Your task to perform on an android device: empty trash in the gmail app Image 0: 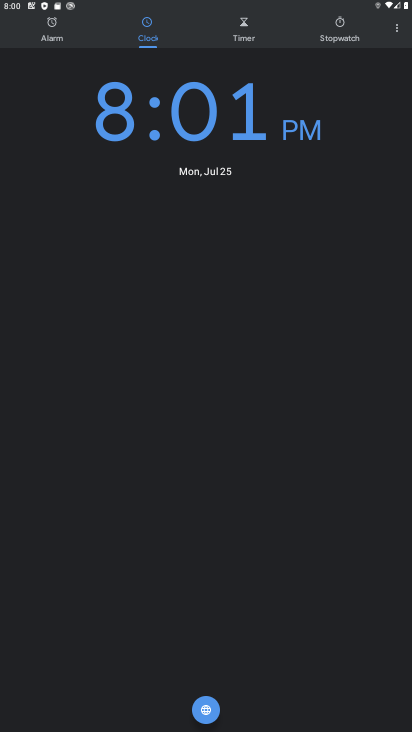
Step 0: press back button
Your task to perform on an android device: empty trash in the gmail app Image 1: 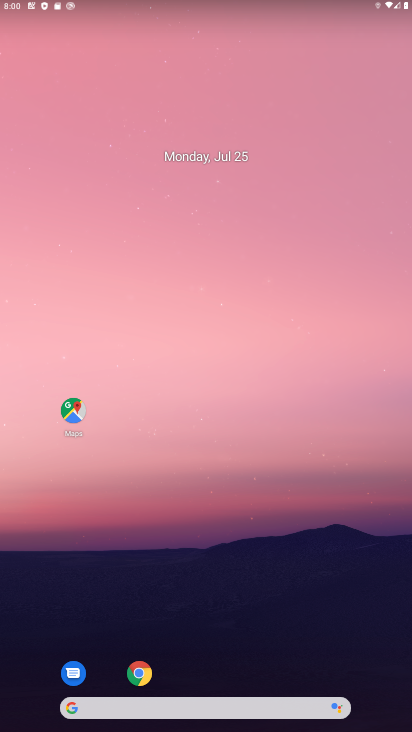
Step 1: drag from (164, 523) to (123, 245)
Your task to perform on an android device: empty trash in the gmail app Image 2: 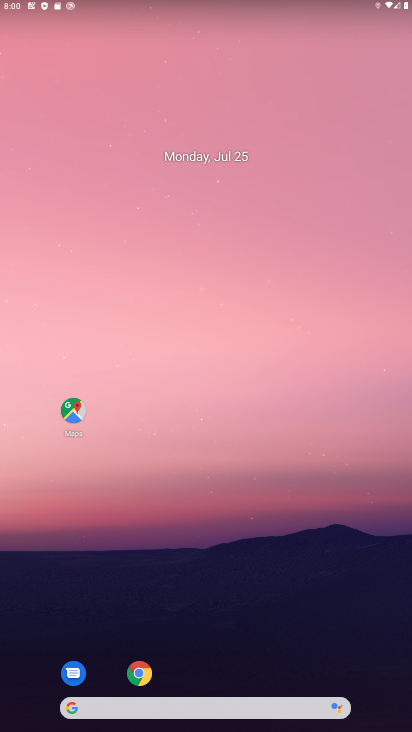
Step 2: drag from (244, 606) to (178, 86)
Your task to perform on an android device: empty trash in the gmail app Image 3: 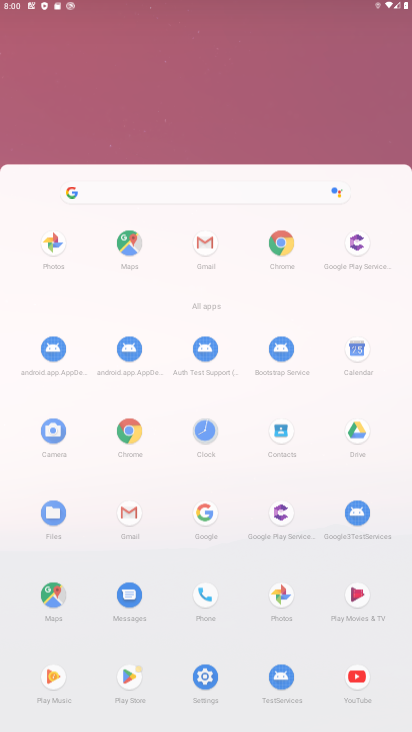
Step 3: click (240, 165)
Your task to perform on an android device: empty trash in the gmail app Image 4: 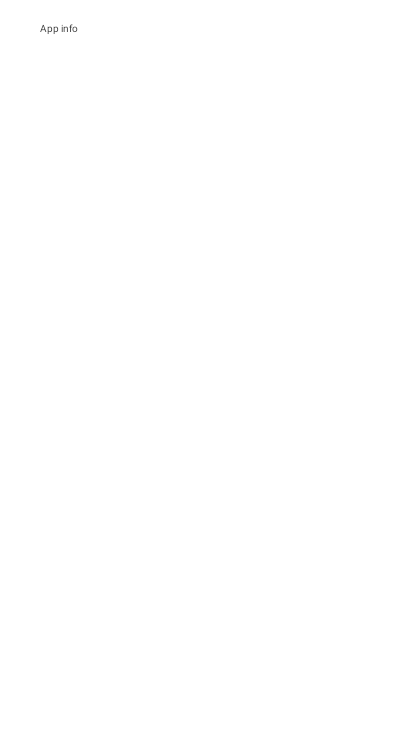
Step 4: click (129, 355)
Your task to perform on an android device: empty trash in the gmail app Image 5: 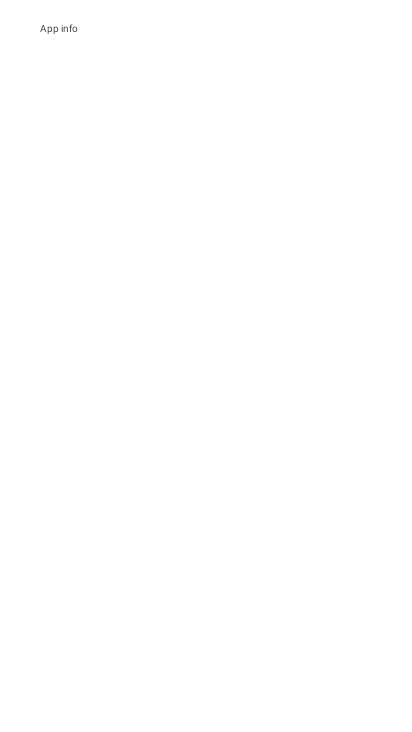
Step 5: press back button
Your task to perform on an android device: empty trash in the gmail app Image 6: 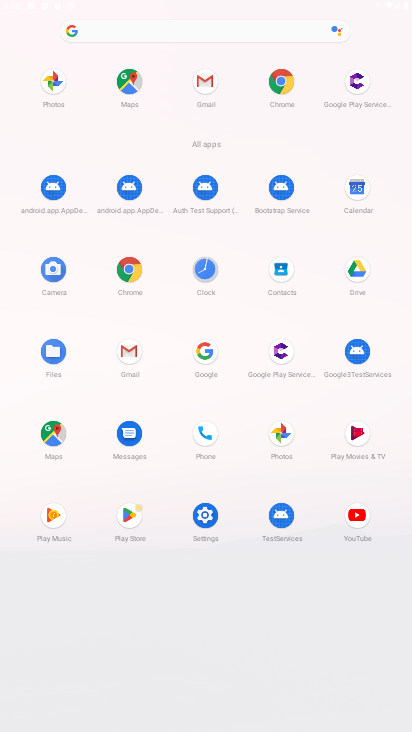
Step 6: click (136, 370)
Your task to perform on an android device: empty trash in the gmail app Image 7: 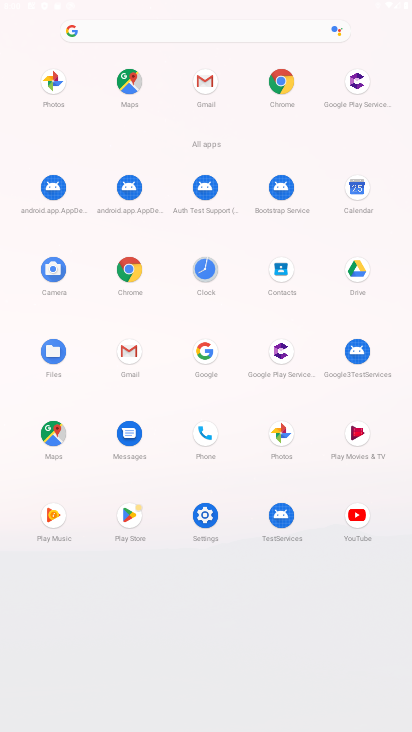
Step 7: click (129, 362)
Your task to perform on an android device: empty trash in the gmail app Image 8: 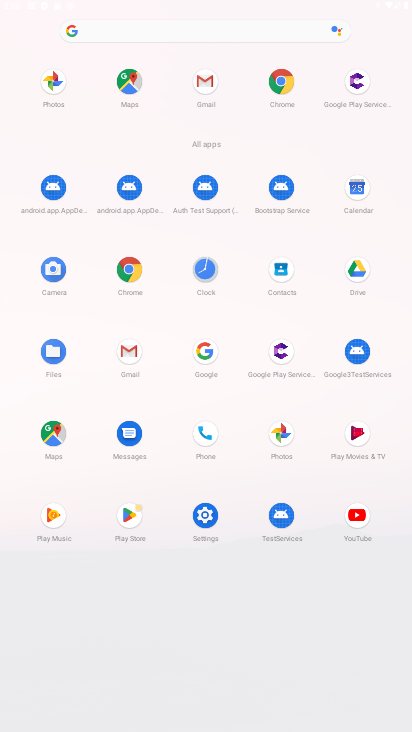
Step 8: click (136, 351)
Your task to perform on an android device: empty trash in the gmail app Image 9: 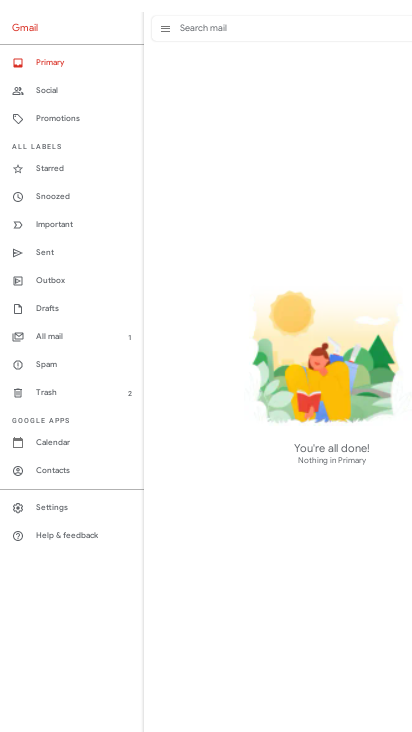
Step 9: click (47, 387)
Your task to perform on an android device: empty trash in the gmail app Image 10: 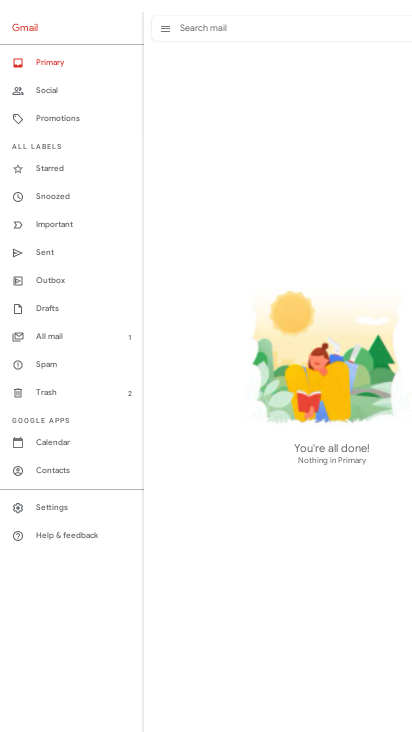
Step 10: click (47, 387)
Your task to perform on an android device: empty trash in the gmail app Image 11: 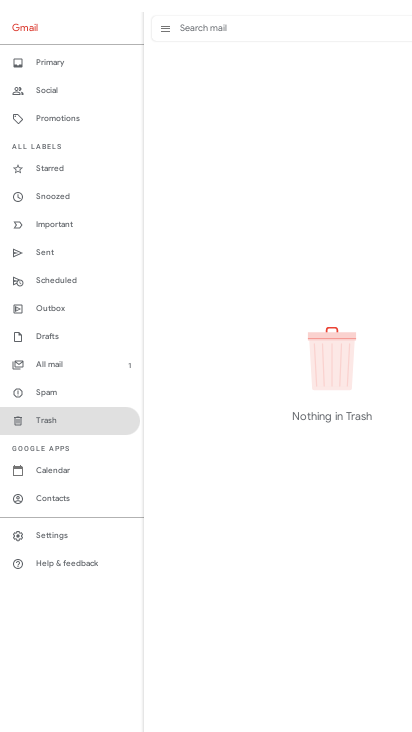
Step 11: click (58, 421)
Your task to perform on an android device: empty trash in the gmail app Image 12: 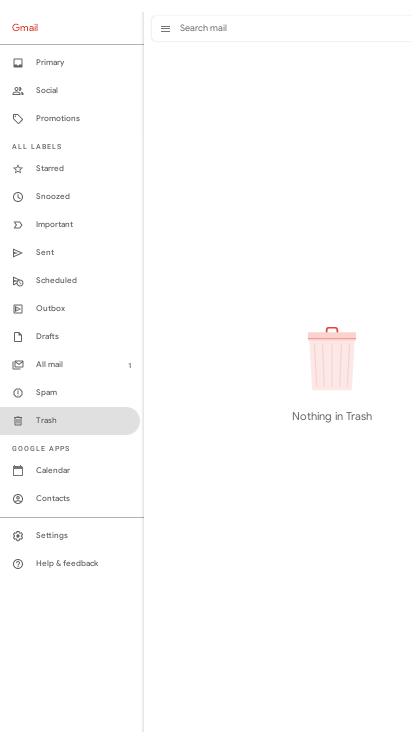
Step 12: click (58, 421)
Your task to perform on an android device: empty trash in the gmail app Image 13: 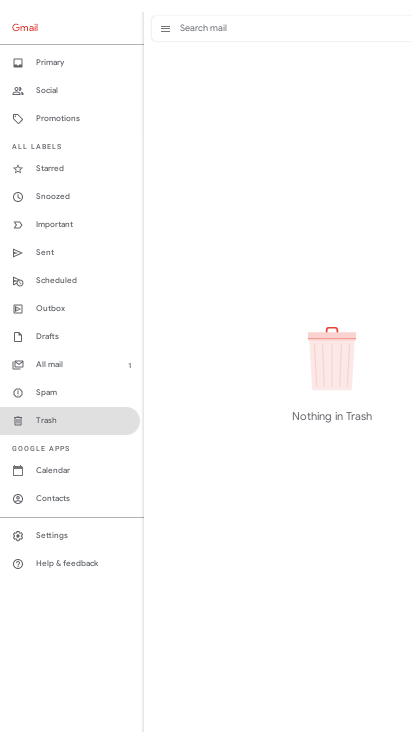
Step 13: click (58, 421)
Your task to perform on an android device: empty trash in the gmail app Image 14: 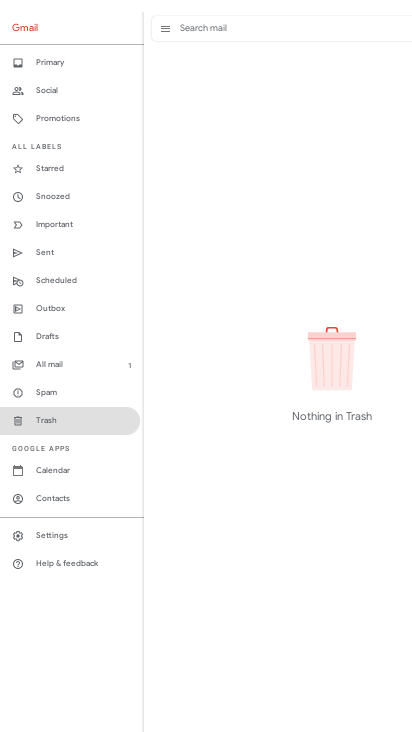
Step 14: click (58, 422)
Your task to perform on an android device: empty trash in the gmail app Image 15: 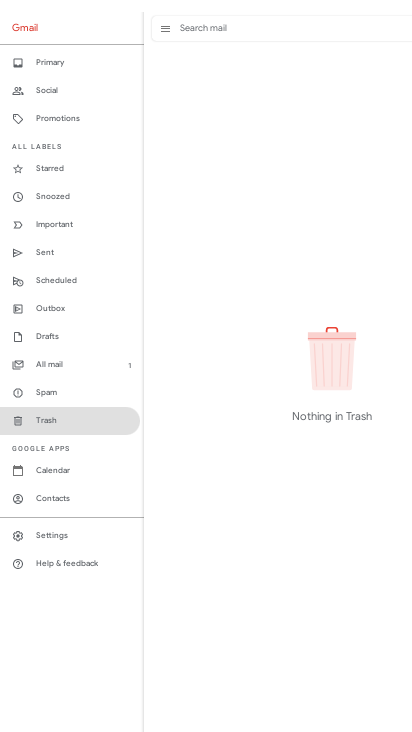
Step 15: click (58, 422)
Your task to perform on an android device: empty trash in the gmail app Image 16: 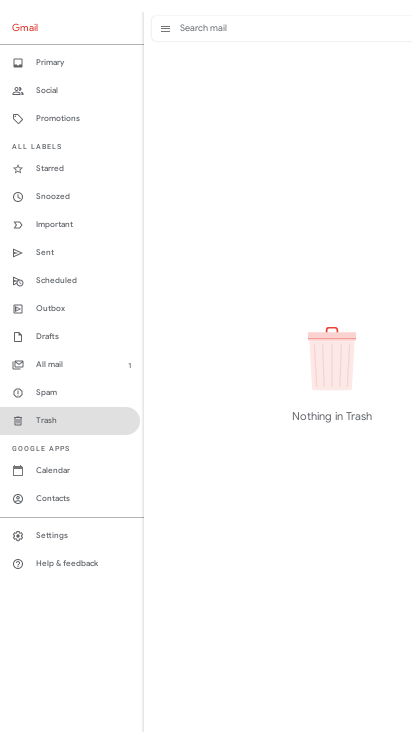
Step 16: task complete